Your task to perform on an android device: Is it going to rain today? Image 0: 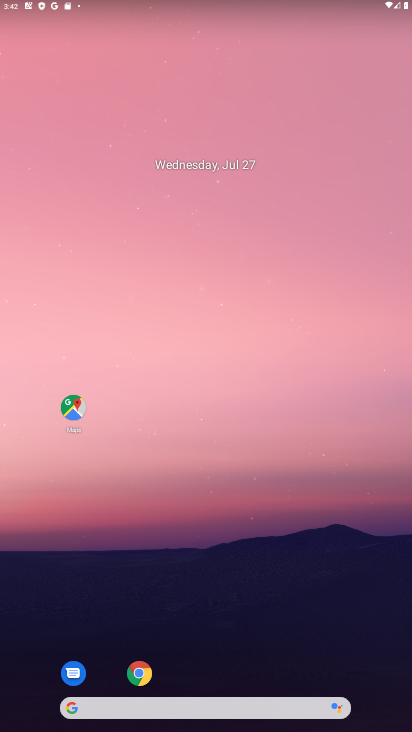
Step 0: click (134, 673)
Your task to perform on an android device: Is it going to rain today? Image 1: 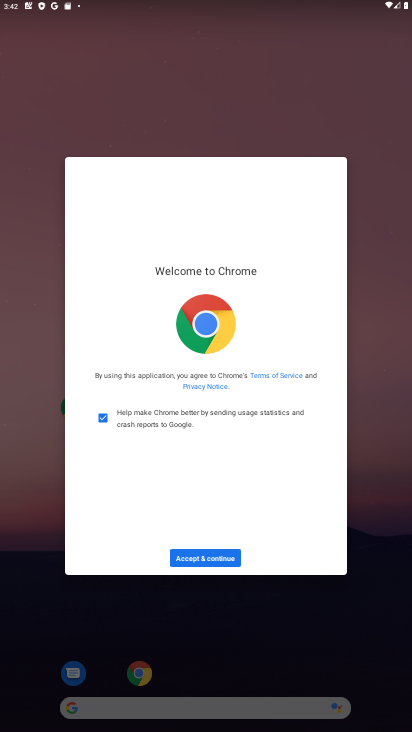
Step 1: click (209, 550)
Your task to perform on an android device: Is it going to rain today? Image 2: 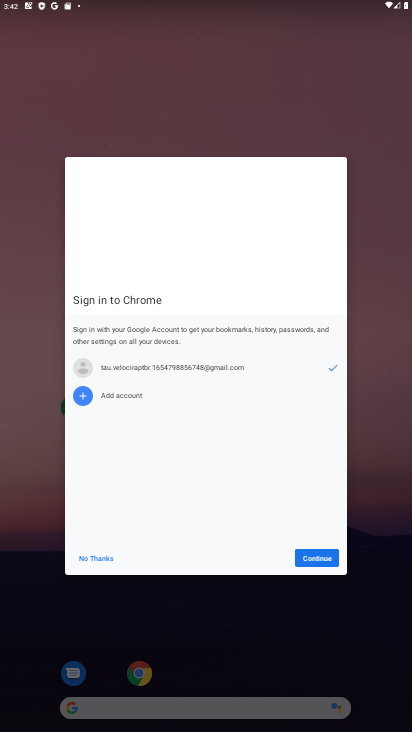
Step 2: click (318, 558)
Your task to perform on an android device: Is it going to rain today? Image 3: 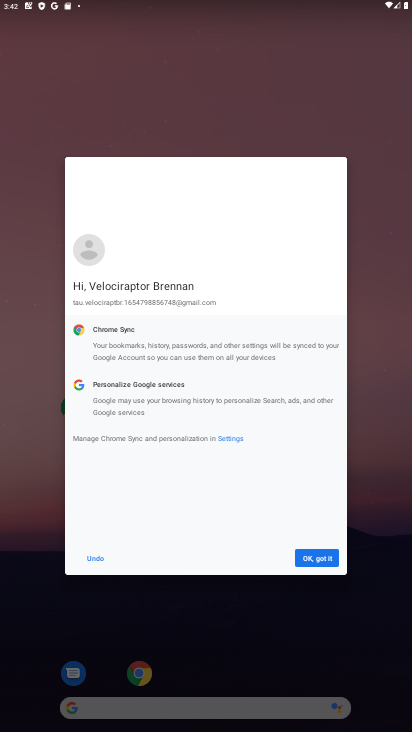
Step 3: click (312, 558)
Your task to perform on an android device: Is it going to rain today? Image 4: 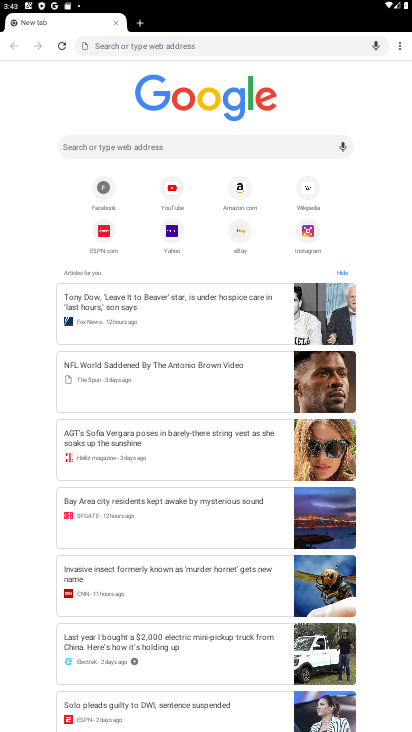
Step 4: click (207, 37)
Your task to perform on an android device: Is it going to rain today? Image 5: 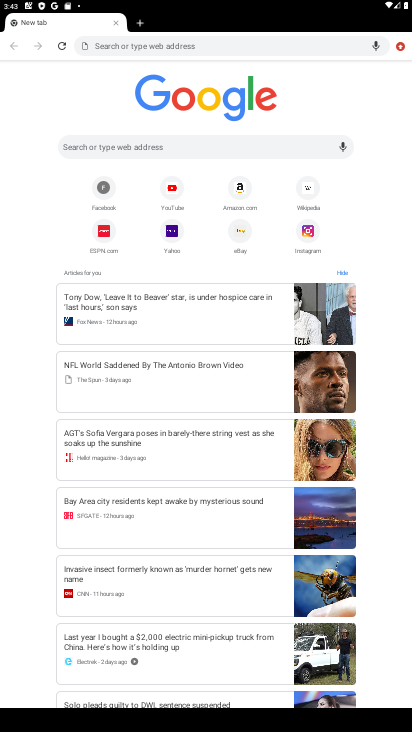
Step 5: type "Is it going to rain today?"
Your task to perform on an android device: Is it going to rain today? Image 6: 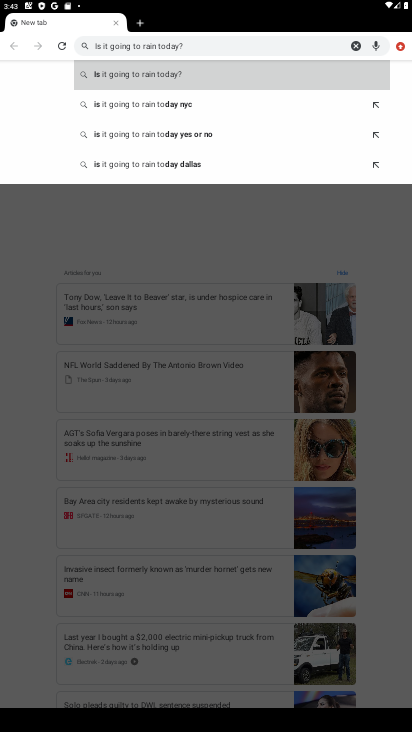
Step 6: click (241, 76)
Your task to perform on an android device: Is it going to rain today? Image 7: 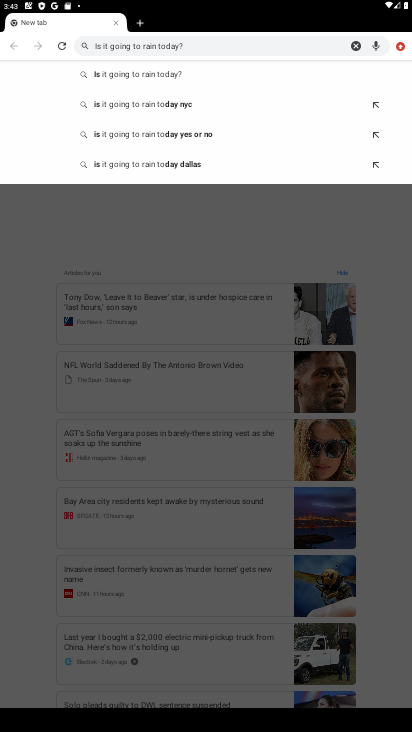
Step 7: click (167, 65)
Your task to perform on an android device: Is it going to rain today? Image 8: 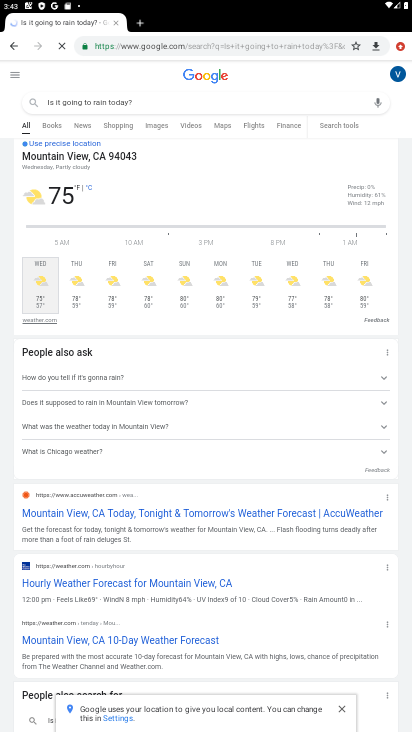
Step 8: task complete